Your task to perform on an android device: turn on improve location accuracy Image 0: 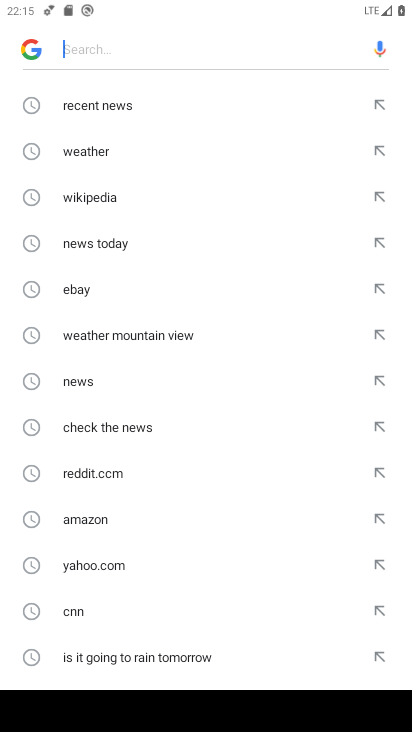
Step 0: press home button
Your task to perform on an android device: turn on improve location accuracy Image 1: 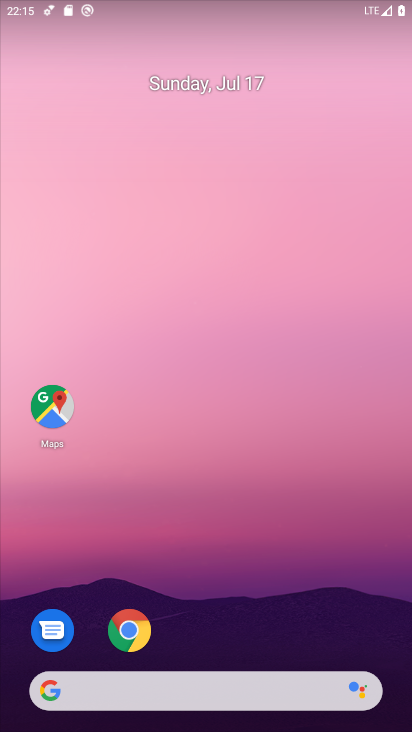
Step 1: drag from (198, 647) to (217, 0)
Your task to perform on an android device: turn on improve location accuracy Image 2: 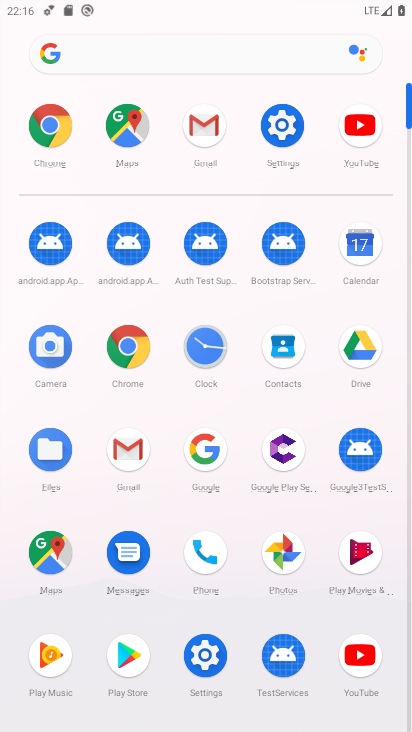
Step 2: click (198, 663)
Your task to perform on an android device: turn on improve location accuracy Image 3: 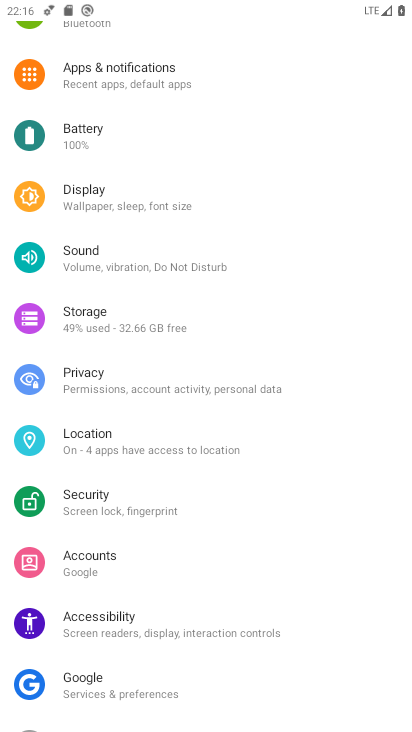
Step 3: click (152, 430)
Your task to perform on an android device: turn on improve location accuracy Image 4: 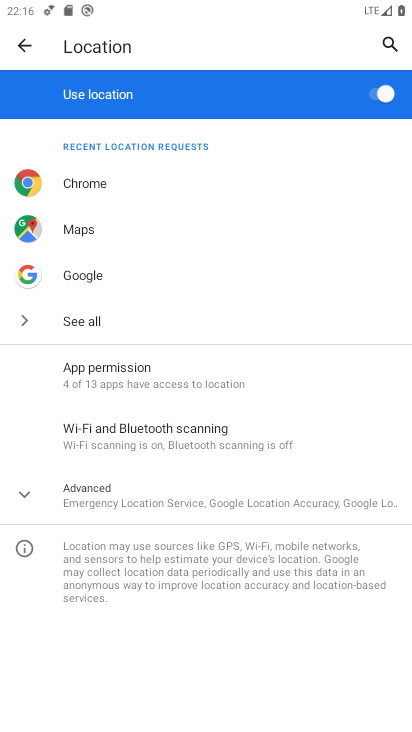
Step 4: click (157, 497)
Your task to perform on an android device: turn on improve location accuracy Image 5: 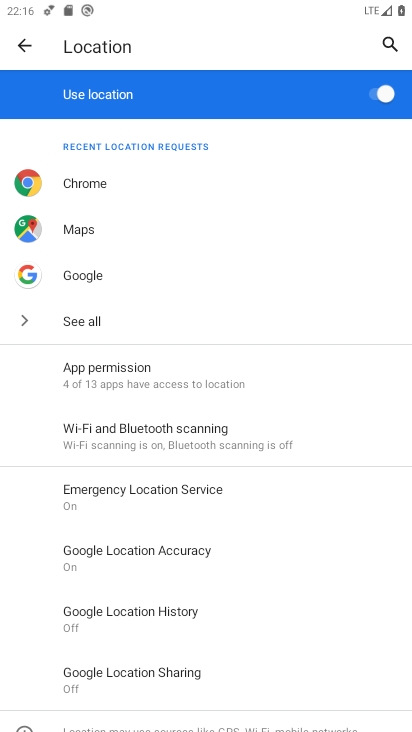
Step 5: click (147, 560)
Your task to perform on an android device: turn on improve location accuracy Image 6: 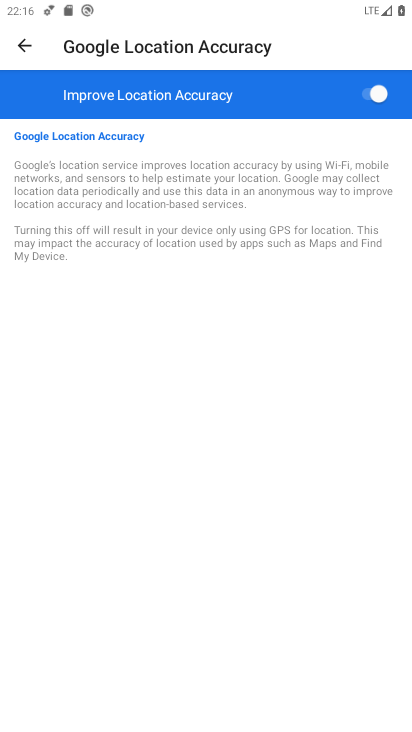
Step 6: task complete